Your task to perform on an android device: Open the web browser Image 0: 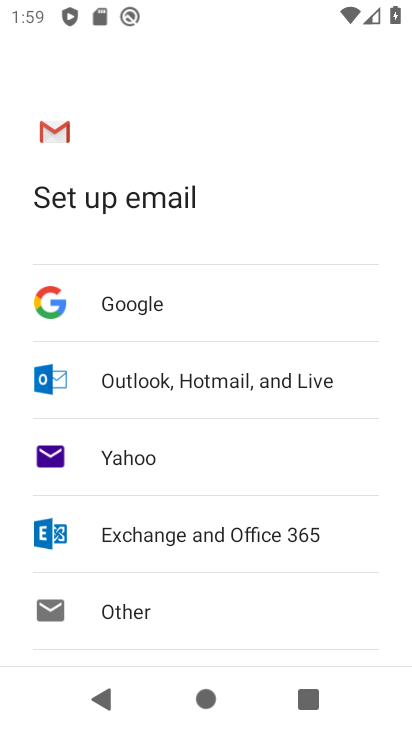
Step 0: press home button
Your task to perform on an android device: Open the web browser Image 1: 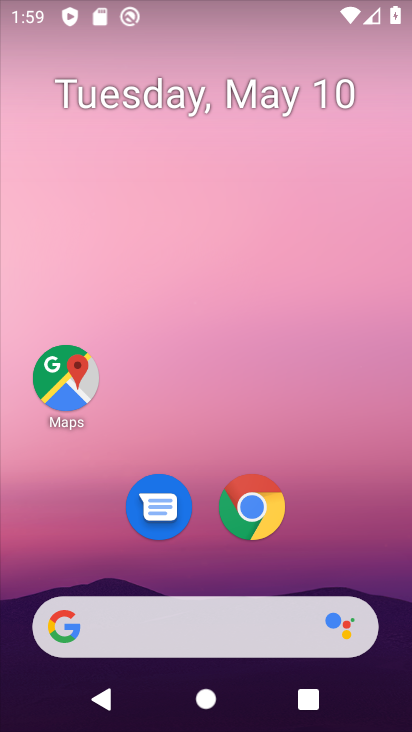
Step 1: click (251, 509)
Your task to perform on an android device: Open the web browser Image 2: 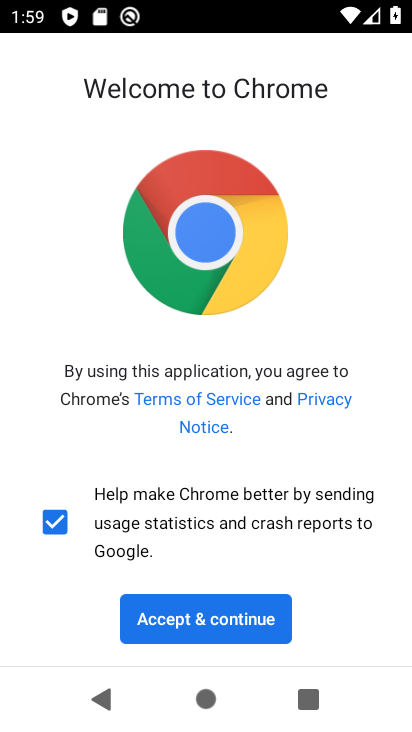
Step 2: click (185, 629)
Your task to perform on an android device: Open the web browser Image 3: 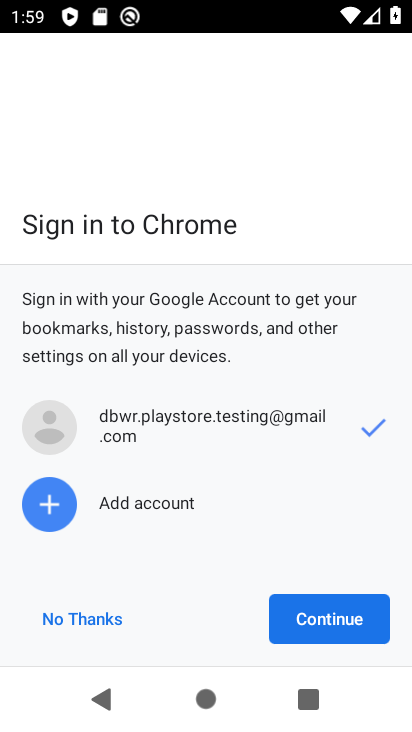
Step 3: click (321, 631)
Your task to perform on an android device: Open the web browser Image 4: 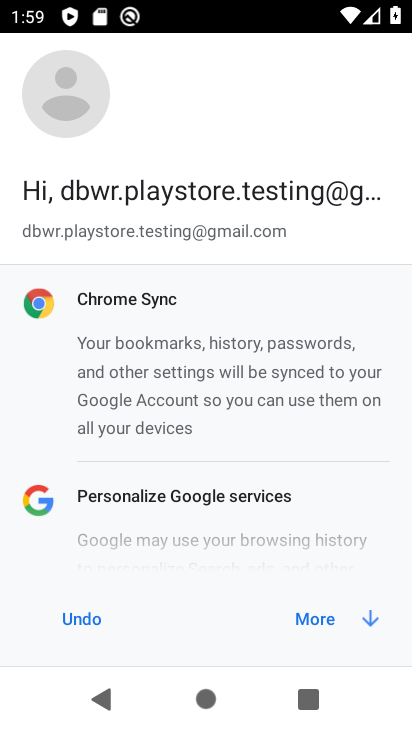
Step 4: click (315, 623)
Your task to perform on an android device: Open the web browser Image 5: 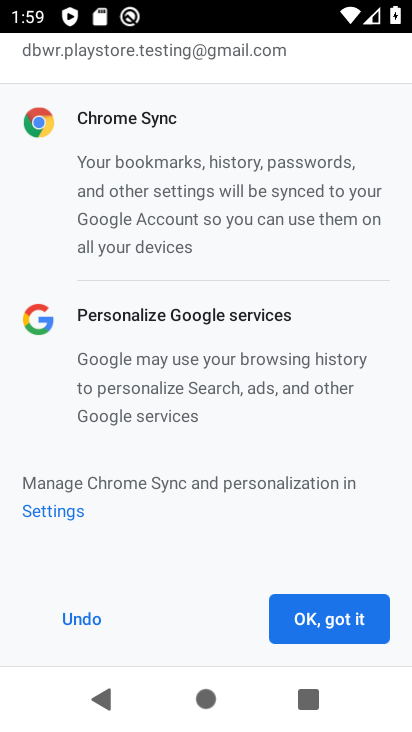
Step 5: click (315, 623)
Your task to perform on an android device: Open the web browser Image 6: 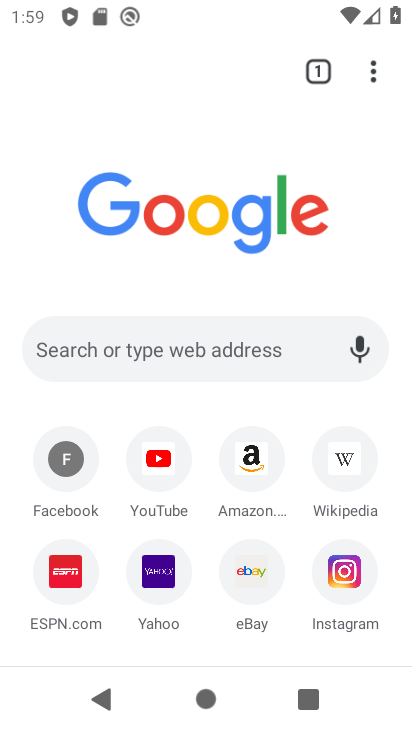
Step 6: task complete